Your task to perform on an android device: Go to display settings Image 0: 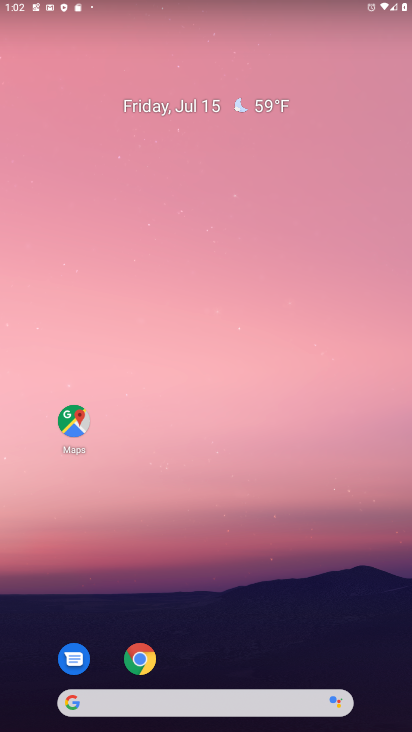
Step 0: drag from (225, 717) to (255, 80)
Your task to perform on an android device: Go to display settings Image 1: 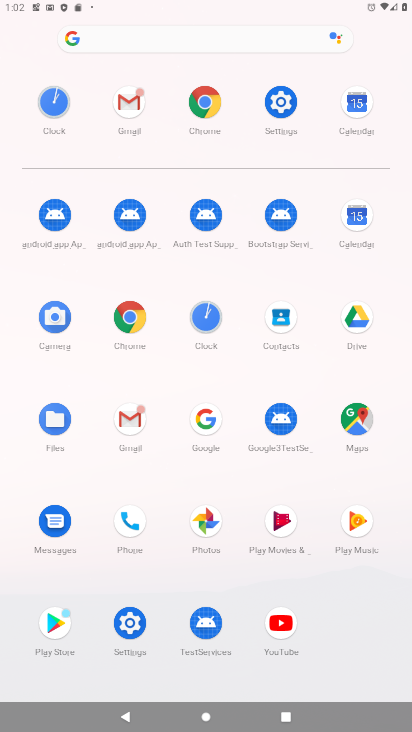
Step 1: click (281, 104)
Your task to perform on an android device: Go to display settings Image 2: 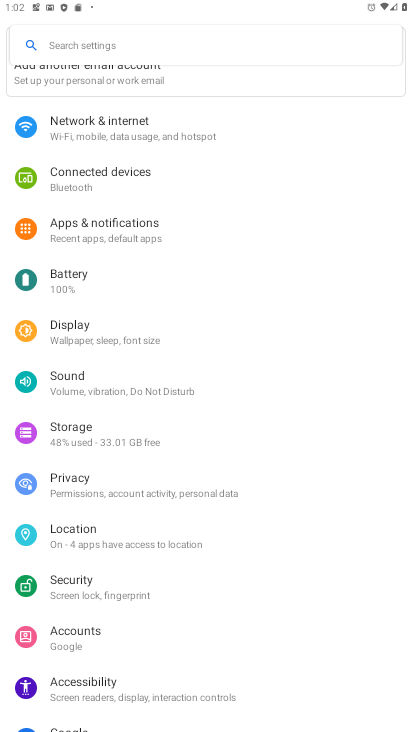
Step 2: click (70, 328)
Your task to perform on an android device: Go to display settings Image 3: 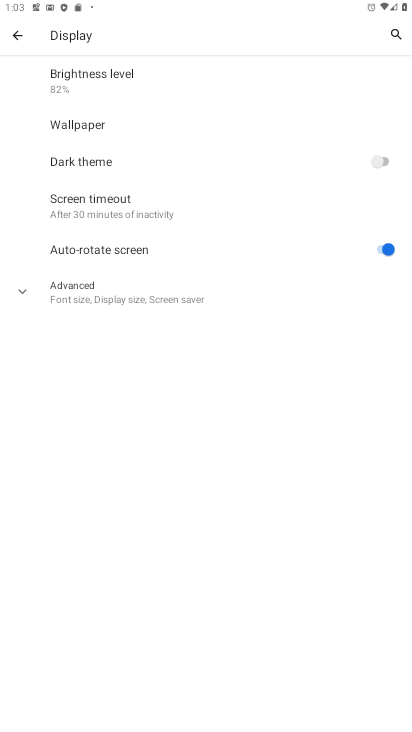
Step 3: task complete